Your task to perform on an android device: What's on my calendar today? Image 0: 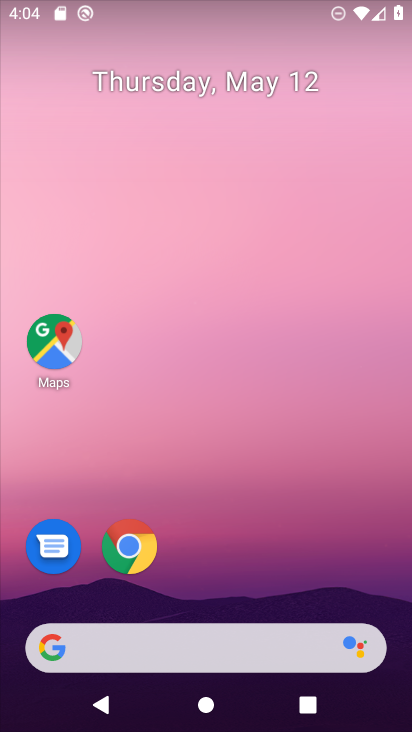
Step 0: drag from (266, 607) to (322, 201)
Your task to perform on an android device: What's on my calendar today? Image 1: 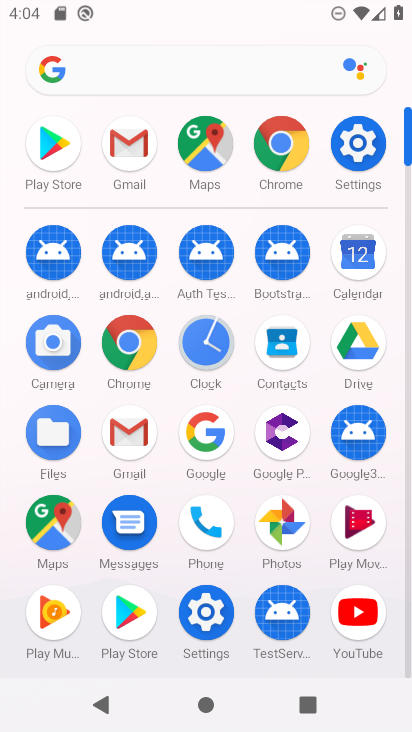
Step 1: click (364, 248)
Your task to perform on an android device: What's on my calendar today? Image 2: 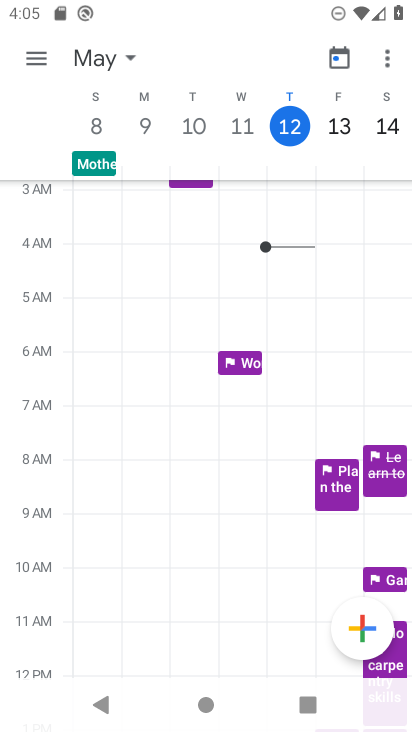
Step 2: task complete